Your task to perform on an android device: remove spam from my inbox in the gmail app Image 0: 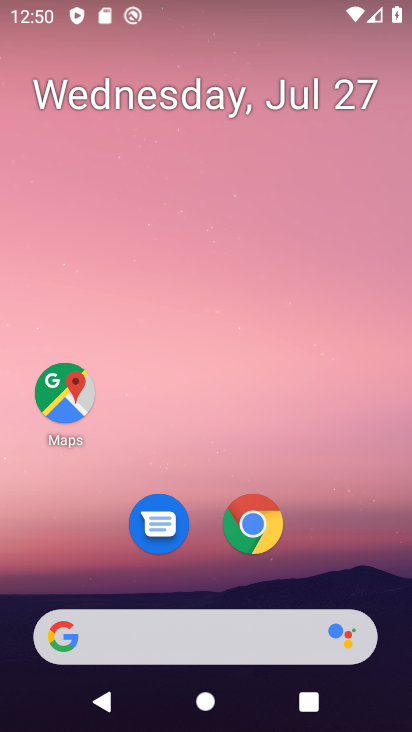
Step 0: drag from (325, 489) to (307, 53)
Your task to perform on an android device: remove spam from my inbox in the gmail app Image 1: 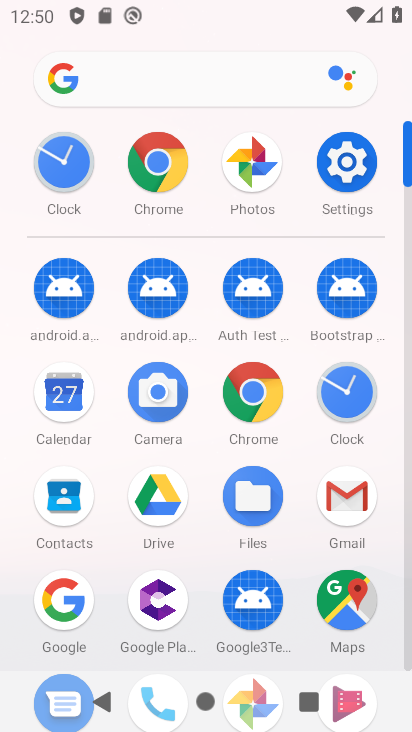
Step 1: click (345, 486)
Your task to perform on an android device: remove spam from my inbox in the gmail app Image 2: 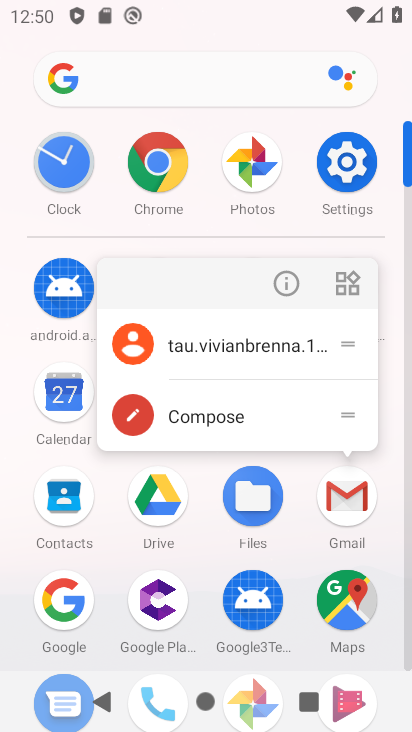
Step 2: click (345, 487)
Your task to perform on an android device: remove spam from my inbox in the gmail app Image 3: 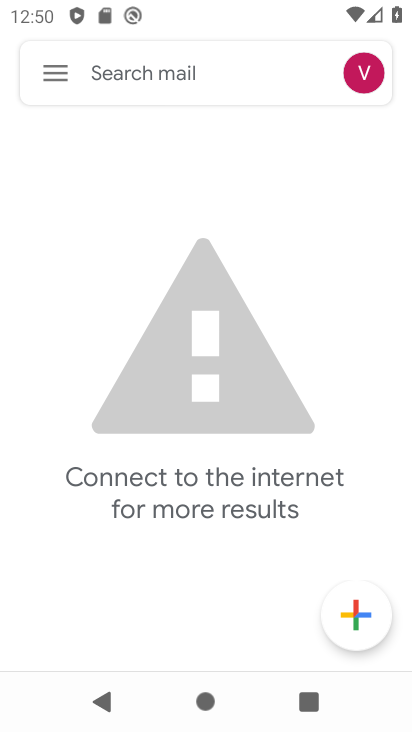
Step 3: click (61, 76)
Your task to perform on an android device: remove spam from my inbox in the gmail app Image 4: 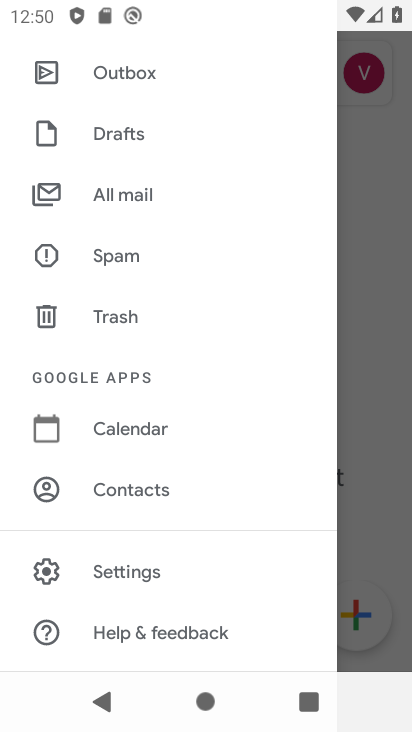
Step 4: click (125, 248)
Your task to perform on an android device: remove spam from my inbox in the gmail app Image 5: 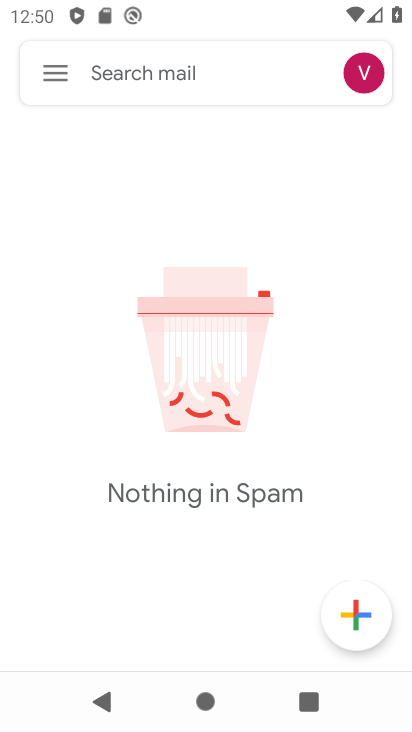
Step 5: task complete